Your task to perform on an android device: change notifications settings Image 0: 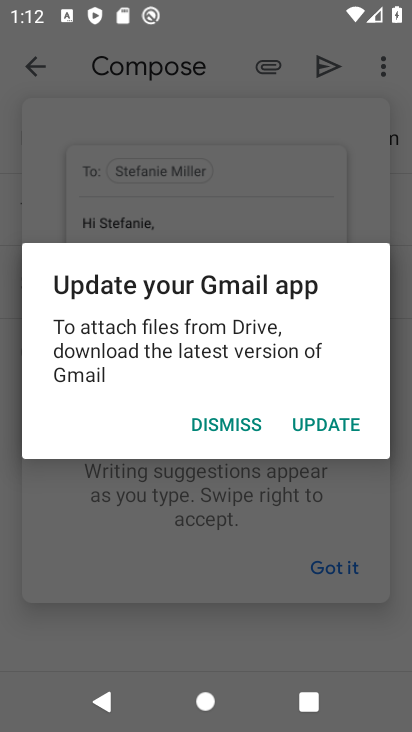
Step 0: press home button
Your task to perform on an android device: change notifications settings Image 1: 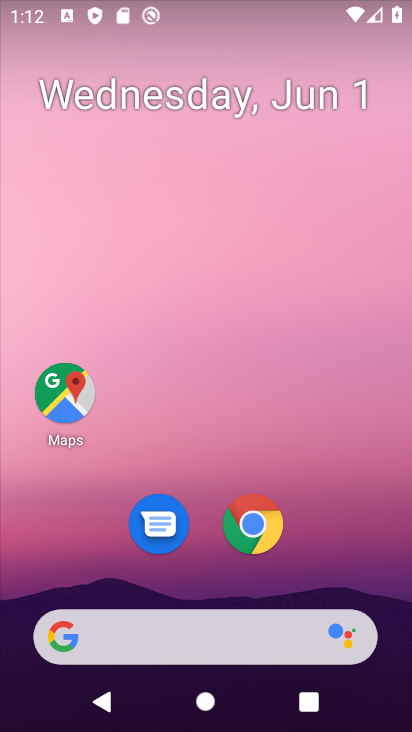
Step 1: drag from (326, 533) to (307, 60)
Your task to perform on an android device: change notifications settings Image 2: 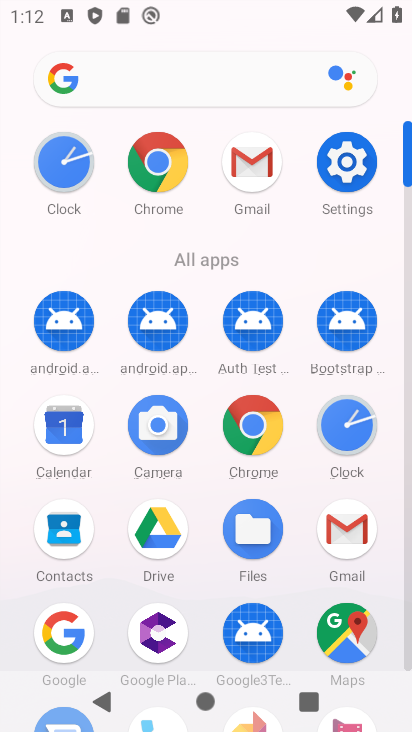
Step 2: click (342, 165)
Your task to perform on an android device: change notifications settings Image 3: 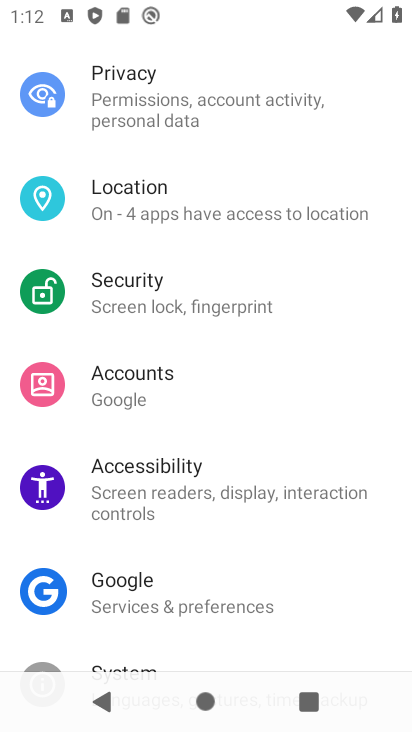
Step 3: drag from (219, 150) to (184, 678)
Your task to perform on an android device: change notifications settings Image 4: 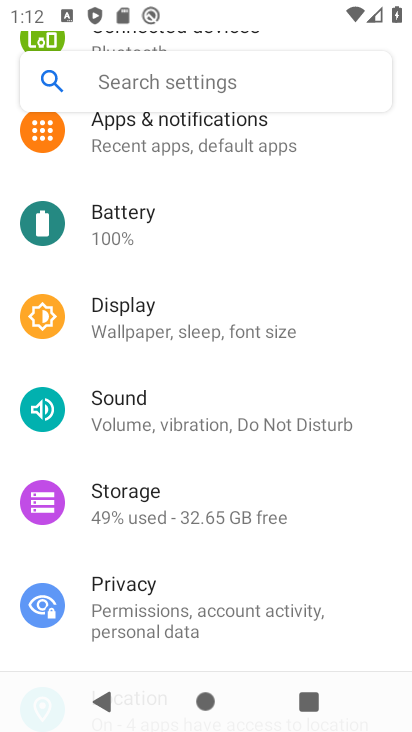
Step 4: click (239, 138)
Your task to perform on an android device: change notifications settings Image 5: 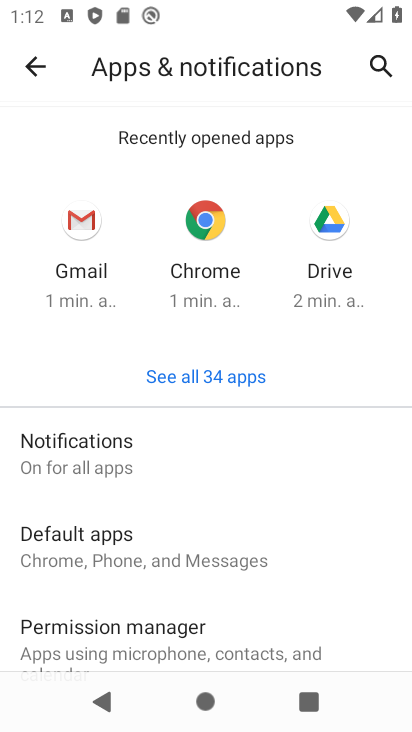
Step 5: click (122, 457)
Your task to perform on an android device: change notifications settings Image 6: 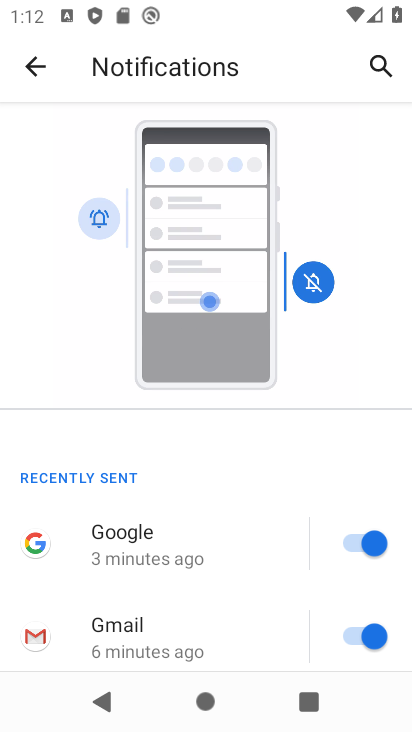
Step 6: drag from (249, 523) to (287, 137)
Your task to perform on an android device: change notifications settings Image 7: 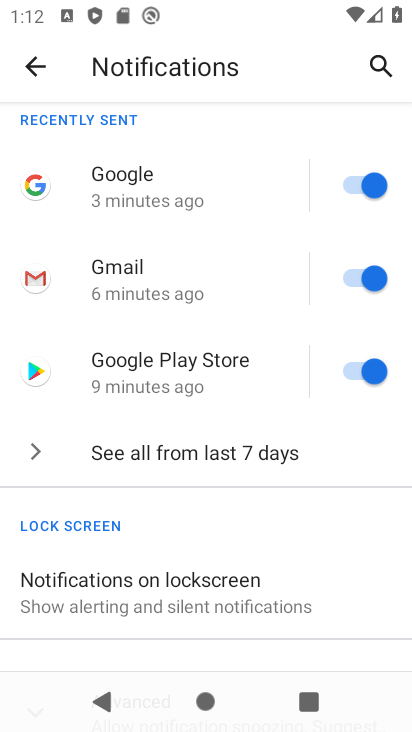
Step 7: click (241, 449)
Your task to perform on an android device: change notifications settings Image 8: 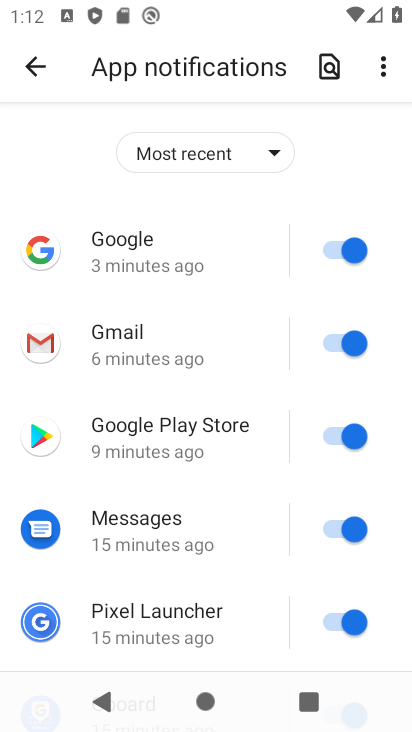
Step 8: click (346, 251)
Your task to perform on an android device: change notifications settings Image 9: 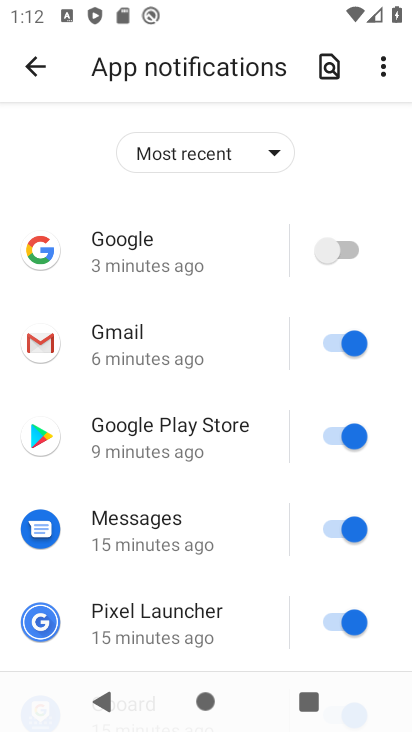
Step 9: click (352, 349)
Your task to perform on an android device: change notifications settings Image 10: 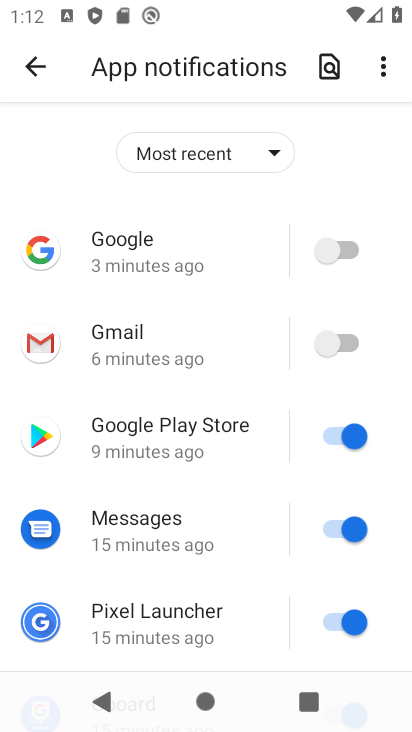
Step 10: click (339, 441)
Your task to perform on an android device: change notifications settings Image 11: 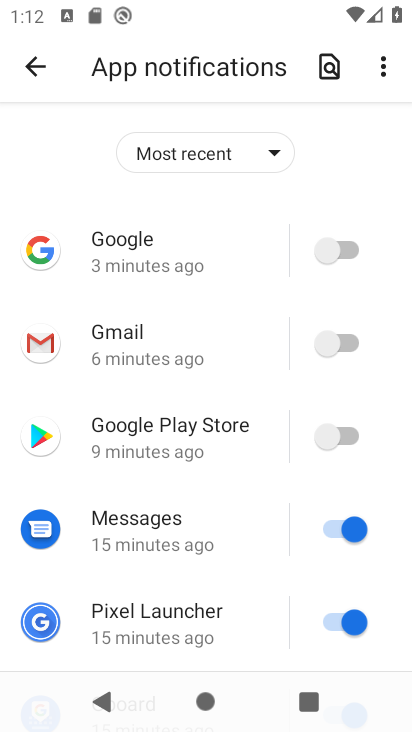
Step 11: click (352, 519)
Your task to perform on an android device: change notifications settings Image 12: 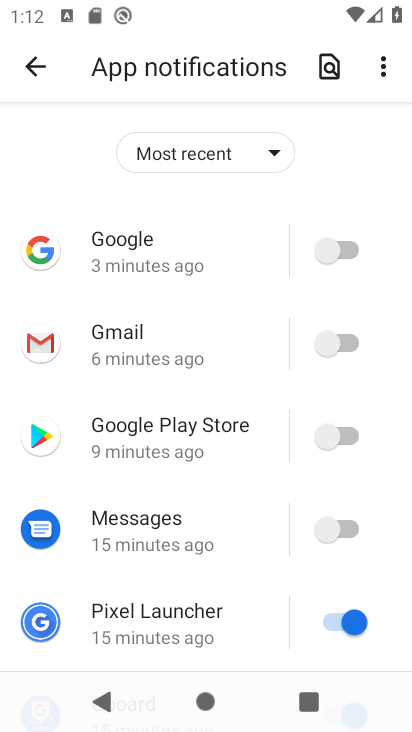
Step 12: click (361, 618)
Your task to perform on an android device: change notifications settings Image 13: 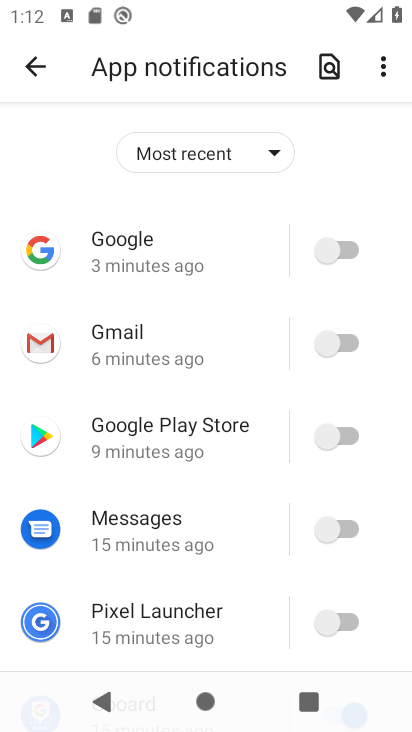
Step 13: drag from (223, 567) to (241, 234)
Your task to perform on an android device: change notifications settings Image 14: 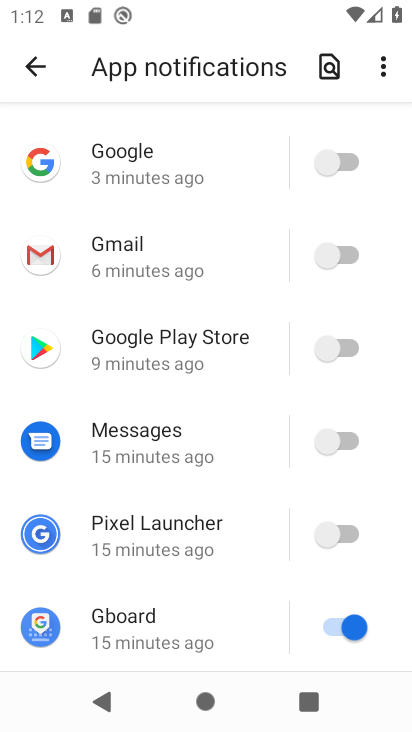
Step 14: click (347, 618)
Your task to perform on an android device: change notifications settings Image 15: 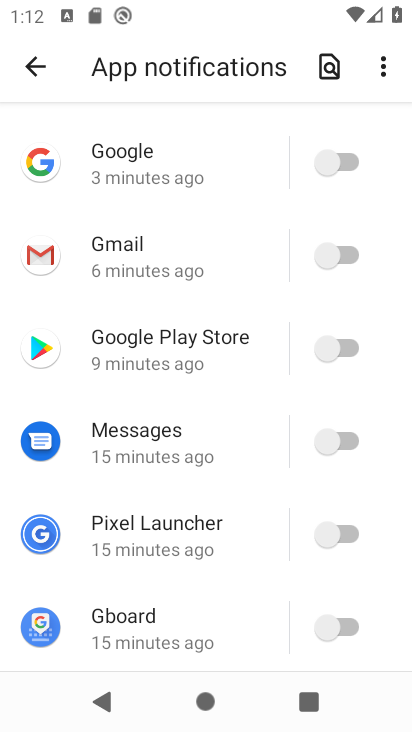
Step 15: task complete